Your task to perform on an android device: add a contact Image 0: 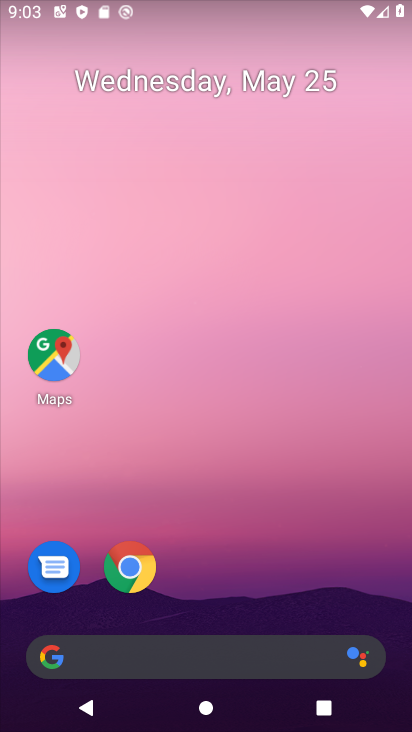
Step 0: drag from (302, 613) to (284, 168)
Your task to perform on an android device: add a contact Image 1: 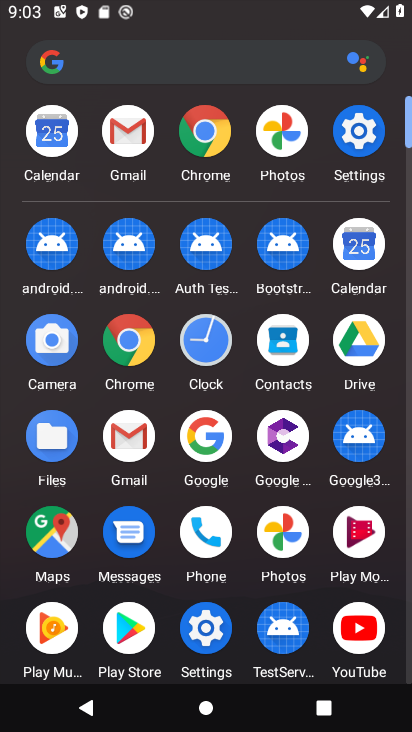
Step 1: click (273, 366)
Your task to perform on an android device: add a contact Image 2: 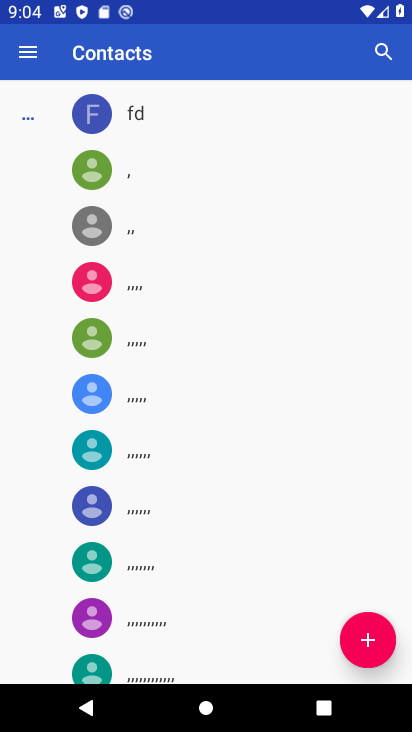
Step 2: click (357, 625)
Your task to perform on an android device: add a contact Image 3: 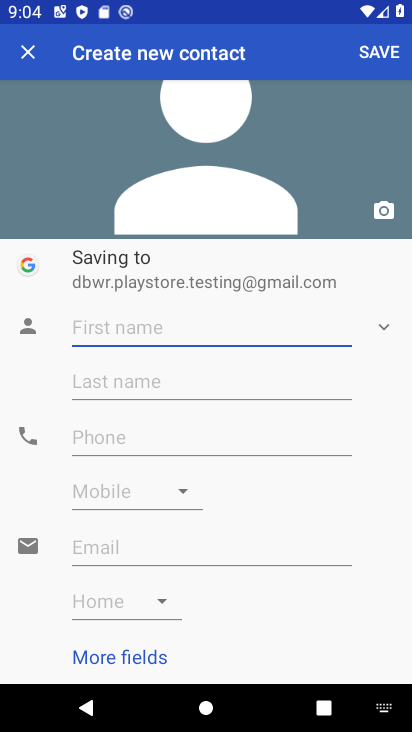
Step 3: type "k kj k"
Your task to perform on an android device: add a contact Image 4: 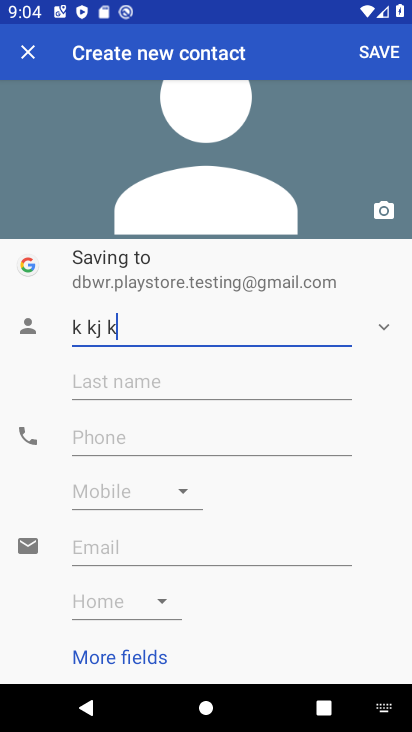
Step 4: click (390, 49)
Your task to perform on an android device: add a contact Image 5: 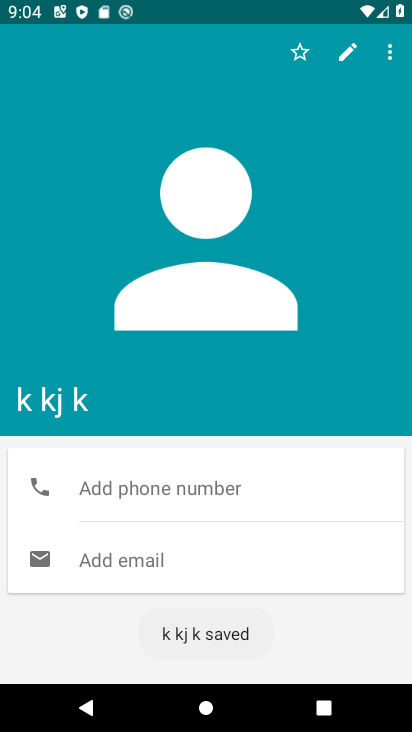
Step 5: task complete